Your task to perform on an android device: check google app version Image 0: 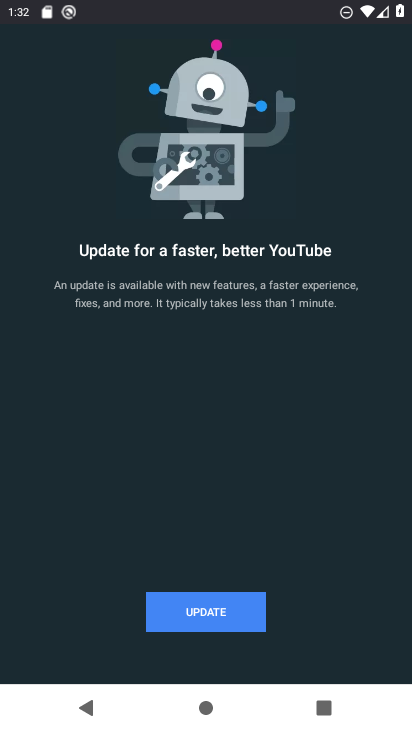
Step 0: press home button
Your task to perform on an android device: check google app version Image 1: 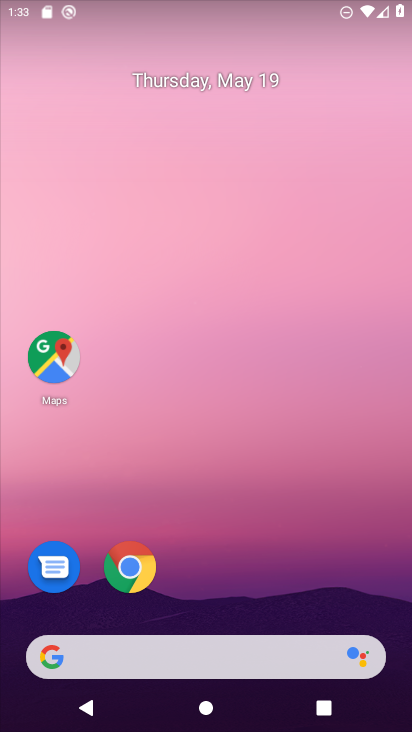
Step 1: drag from (285, 567) to (74, 137)
Your task to perform on an android device: check google app version Image 2: 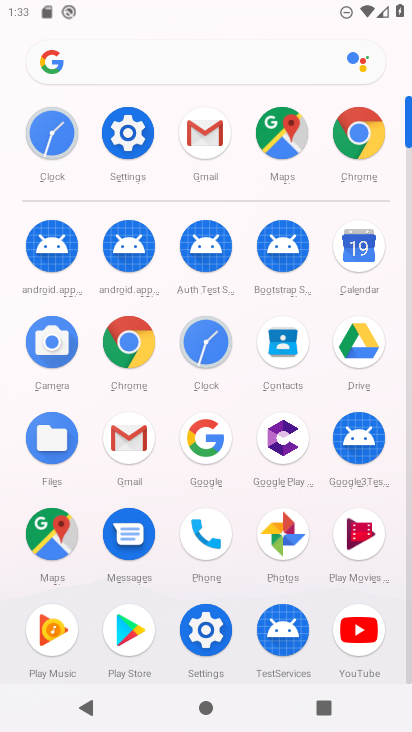
Step 2: click (194, 431)
Your task to perform on an android device: check google app version Image 3: 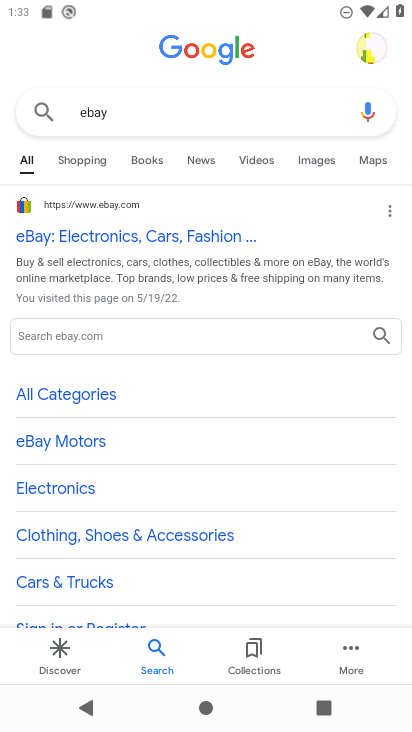
Step 3: click (361, 64)
Your task to perform on an android device: check google app version Image 4: 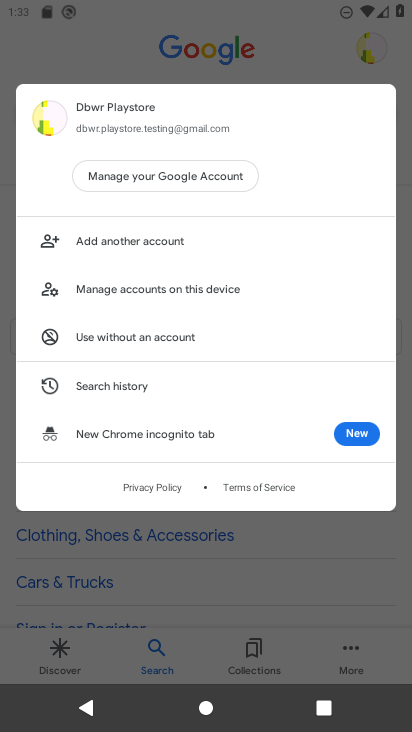
Step 4: drag from (239, 397) to (227, 86)
Your task to perform on an android device: check google app version Image 5: 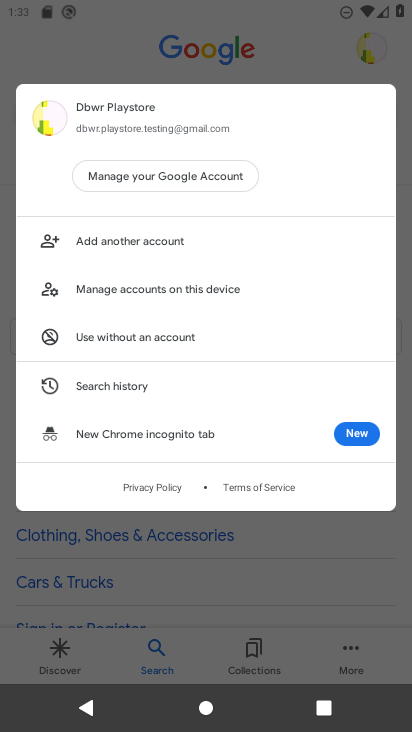
Step 5: press back button
Your task to perform on an android device: check google app version Image 6: 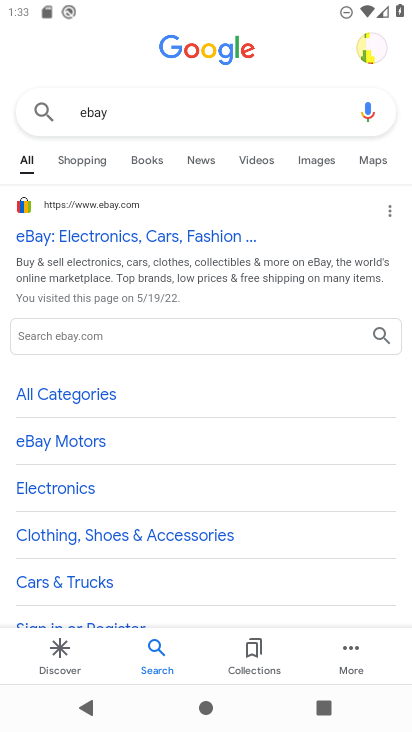
Step 6: press back button
Your task to perform on an android device: check google app version Image 7: 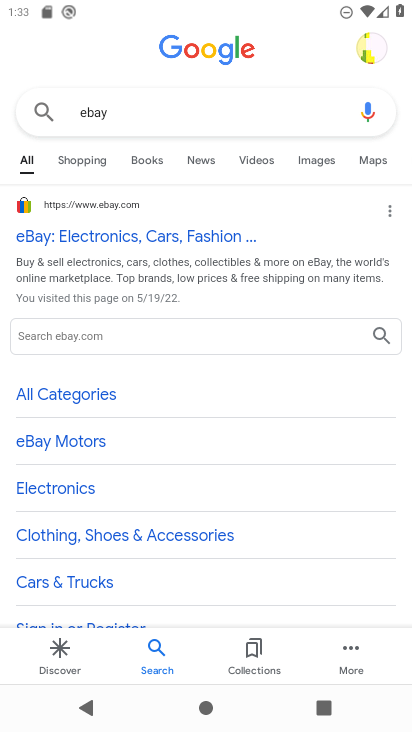
Step 7: click (366, 663)
Your task to perform on an android device: check google app version Image 8: 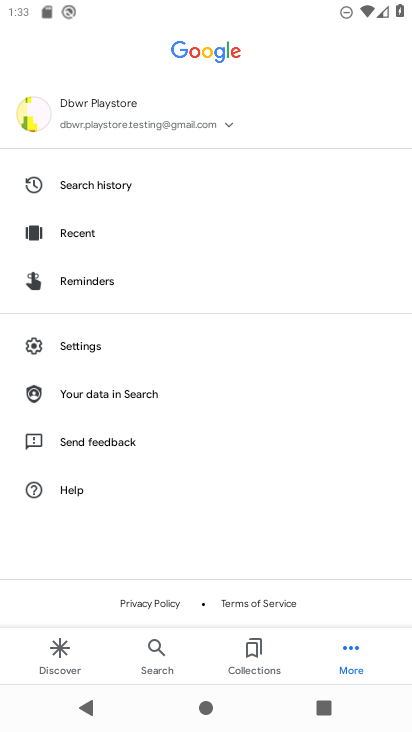
Step 8: click (99, 349)
Your task to perform on an android device: check google app version Image 9: 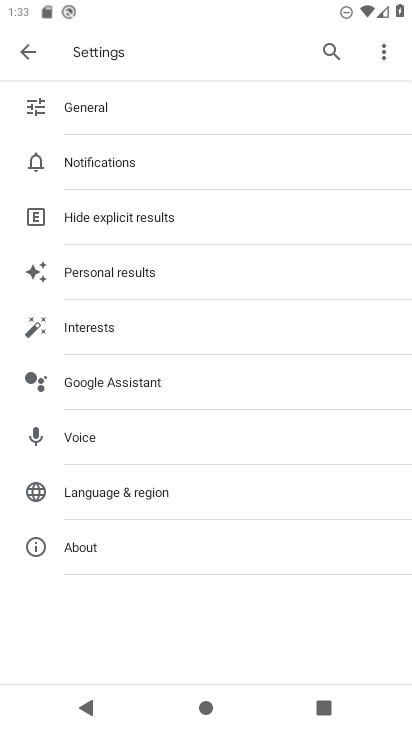
Step 9: drag from (113, 536) to (77, 260)
Your task to perform on an android device: check google app version Image 10: 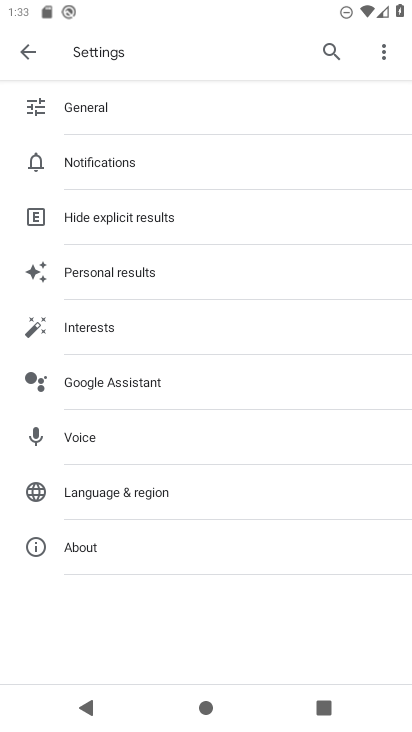
Step 10: click (99, 541)
Your task to perform on an android device: check google app version Image 11: 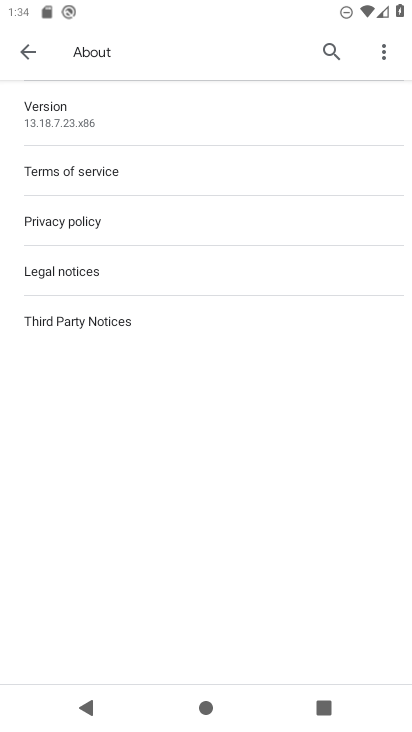
Step 11: task complete